Your task to perform on an android device: Go to Wikipedia Image 0: 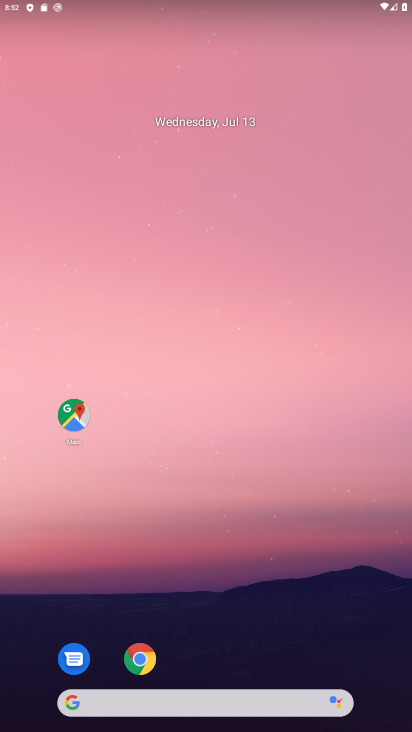
Step 0: click (140, 658)
Your task to perform on an android device: Go to Wikipedia Image 1: 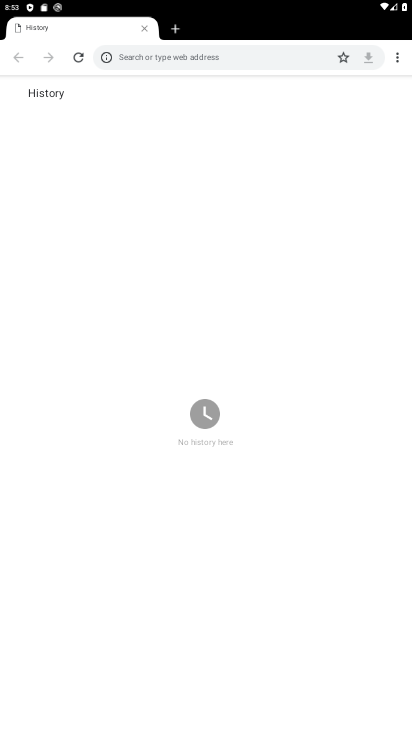
Step 1: click (164, 59)
Your task to perform on an android device: Go to Wikipedia Image 2: 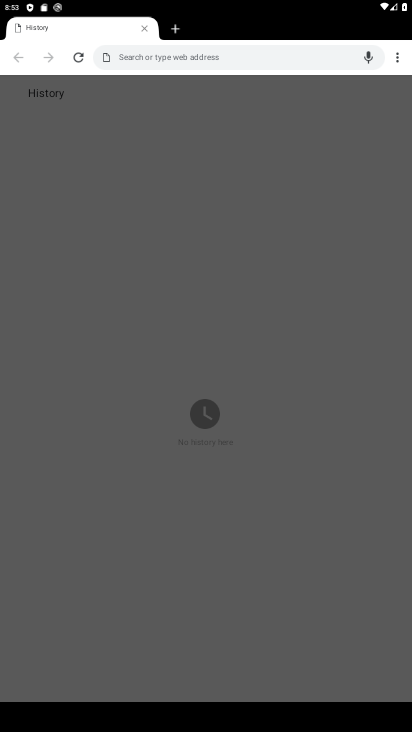
Step 2: type "wikipedia"
Your task to perform on an android device: Go to Wikipedia Image 3: 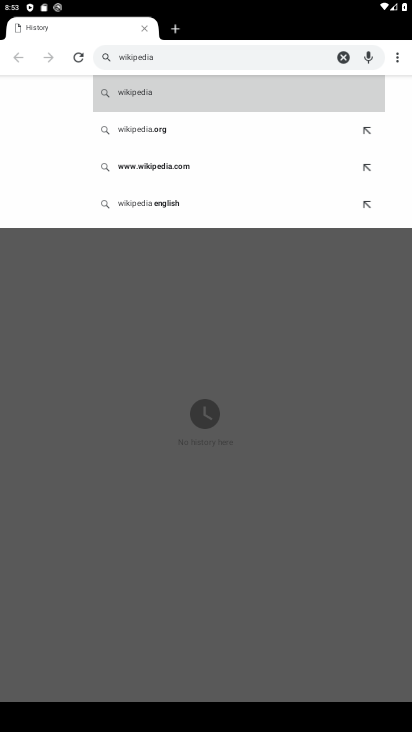
Step 3: click (133, 95)
Your task to perform on an android device: Go to Wikipedia Image 4: 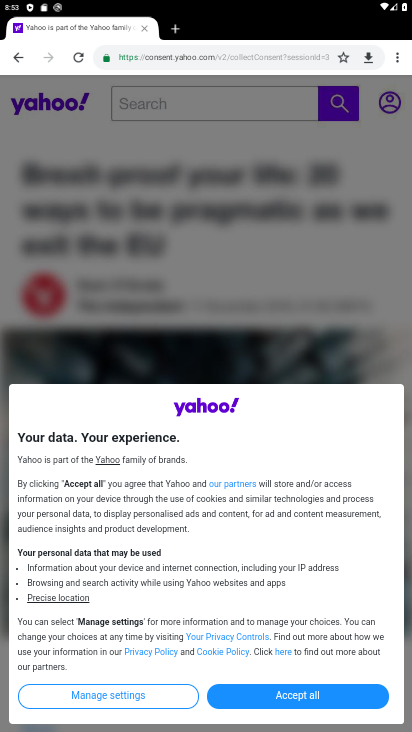
Step 4: click (268, 695)
Your task to perform on an android device: Go to Wikipedia Image 5: 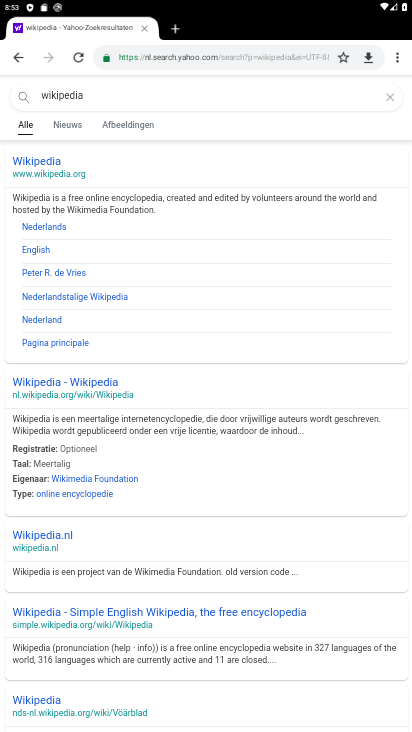
Step 5: click (27, 162)
Your task to perform on an android device: Go to Wikipedia Image 6: 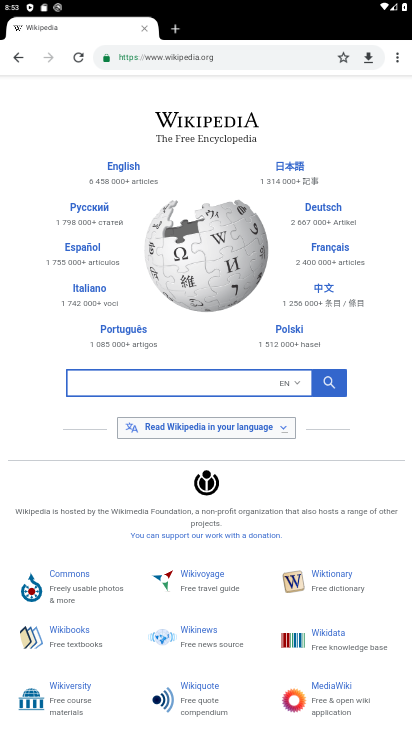
Step 6: task complete